Your task to perform on an android device: Set the phone to "Do not disturb". Image 0: 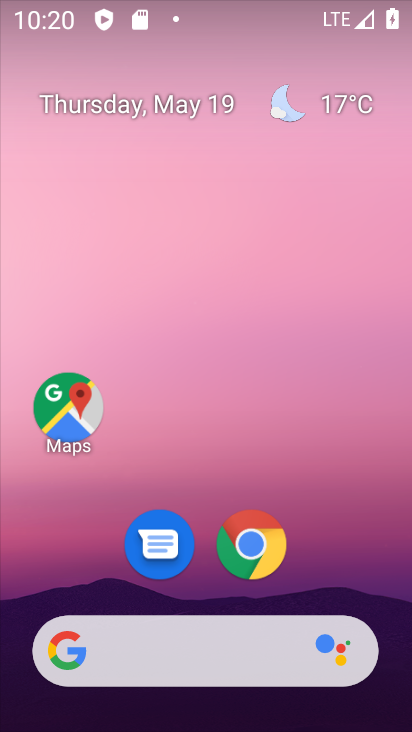
Step 0: drag from (64, 718) to (38, 102)
Your task to perform on an android device: Set the phone to "Do not disturb". Image 1: 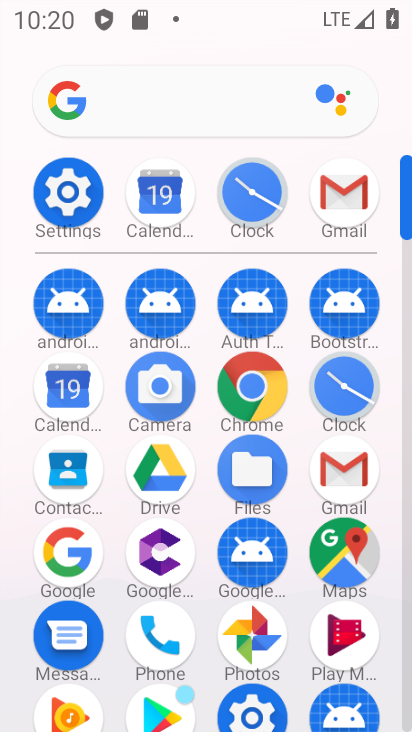
Step 1: click (73, 215)
Your task to perform on an android device: Set the phone to "Do not disturb". Image 2: 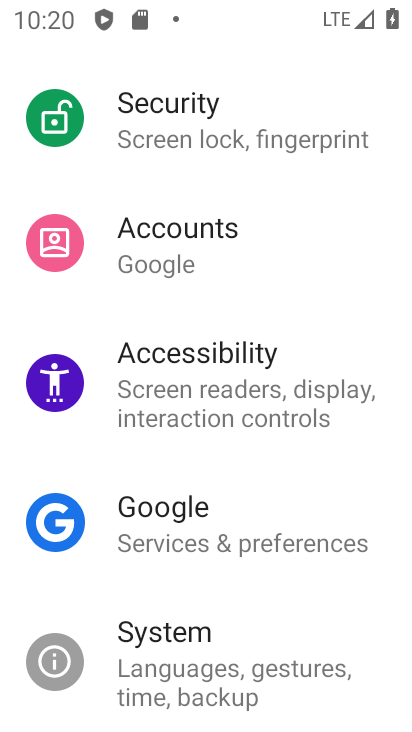
Step 2: drag from (303, 614) to (262, 146)
Your task to perform on an android device: Set the phone to "Do not disturb". Image 3: 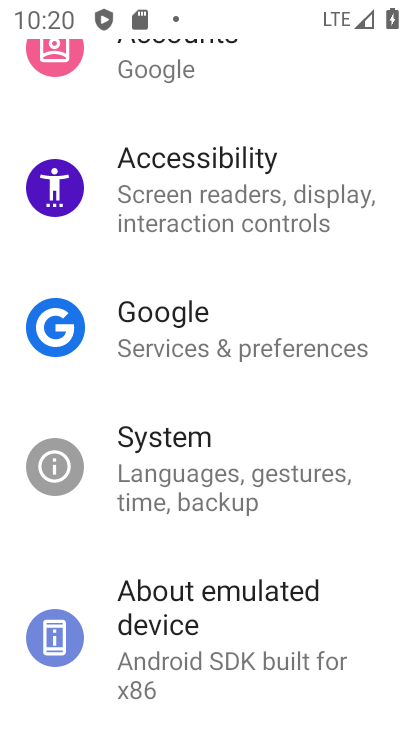
Step 3: drag from (241, 674) to (175, 0)
Your task to perform on an android device: Set the phone to "Do not disturb". Image 4: 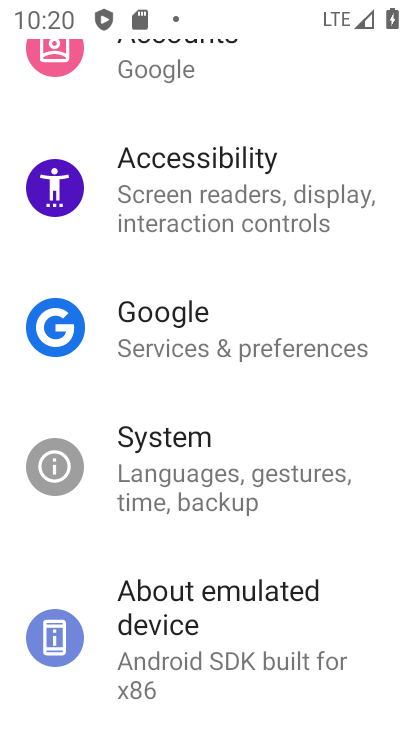
Step 4: drag from (297, 263) to (225, 702)
Your task to perform on an android device: Set the phone to "Do not disturb". Image 5: 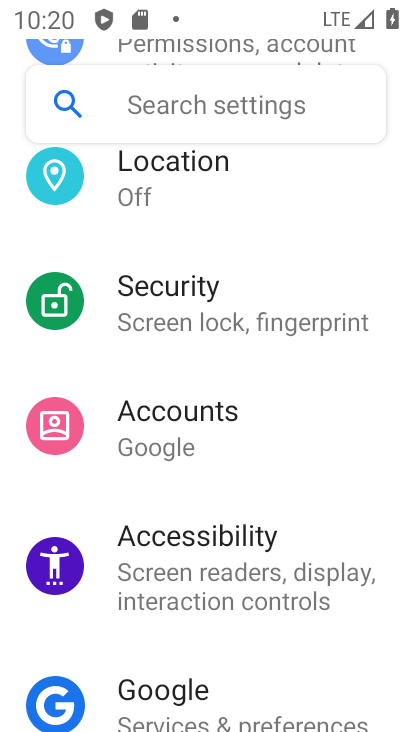
Step 5: drag from (346, 209) to (346, 726)
Your task to perform on an android device: Set the phone to "Do not disturb". Image 6: 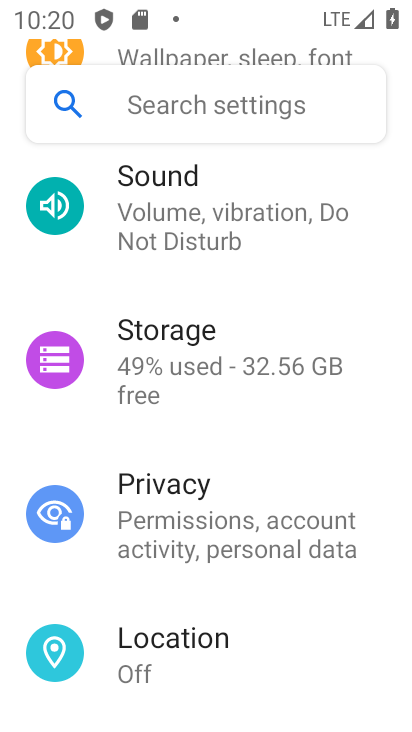
Step 6: click (234, 239)
Your task to perform on an android device: Set the phone to "Do not disturb". Image 7: 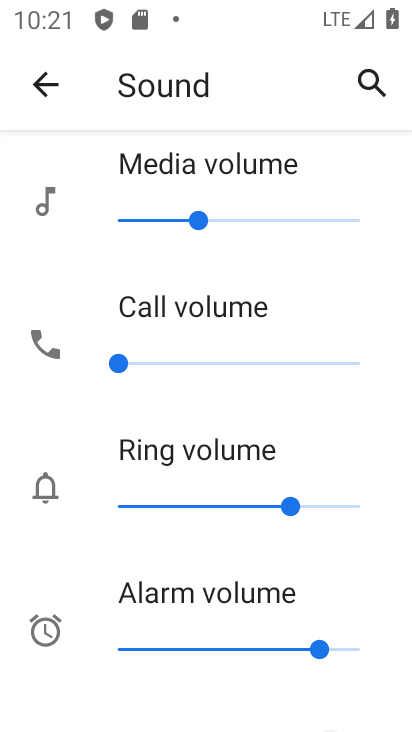
Step 7: task complete